Your task to perform on an android device: set default search engine in the chrome app Image 0: 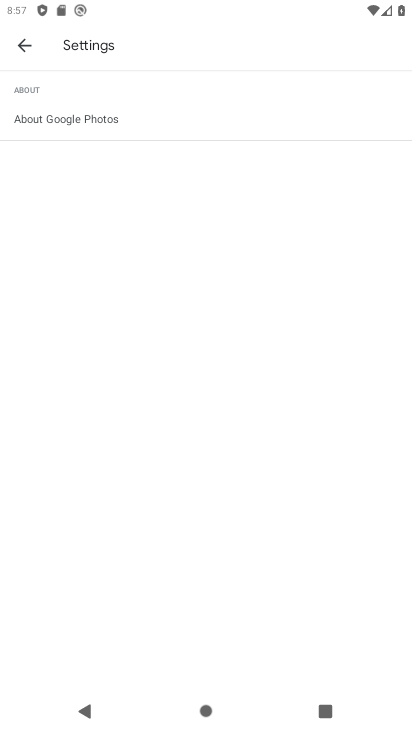
Step 0: press home button
Your task to perform on an android device: set default search engine in the chrome app Image 1: 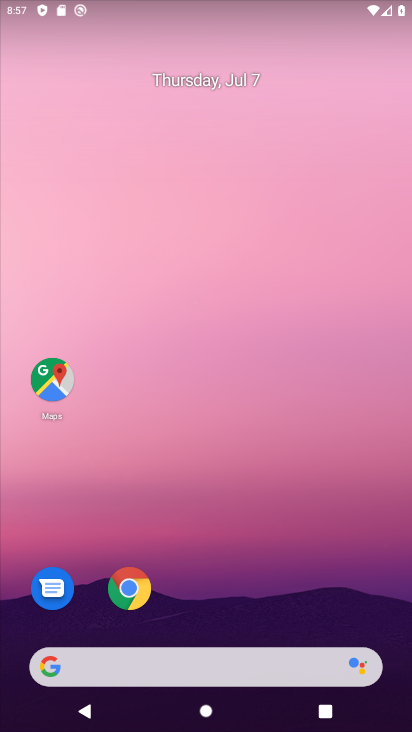
Step 1: click (139, 589)
Your task to perform on an android device: set default search engine in the chrome app Image 2: 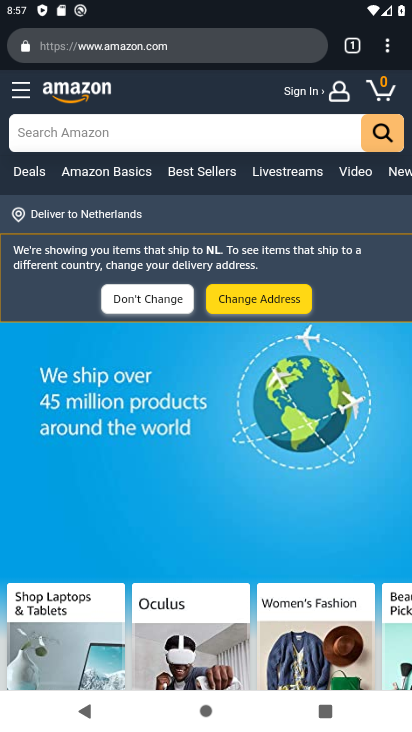
Step 2: click (382, 45)
Your task to perform on an android device: set default search engine in the chrome app Image 3: 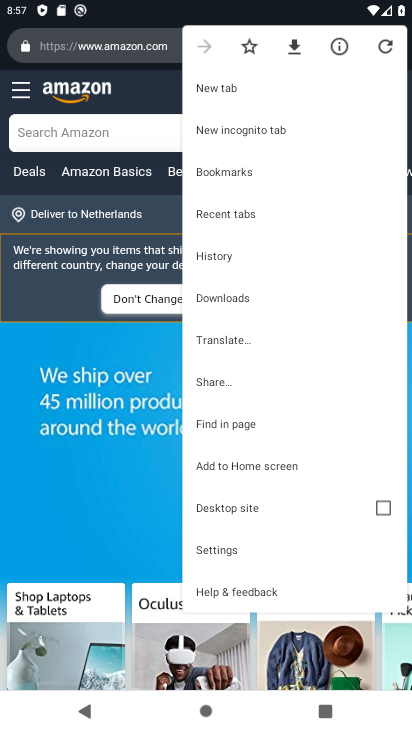
Step 3: click (226, 547)
Your task to perform on an android device: set default search engine in the chrome app Image 4: 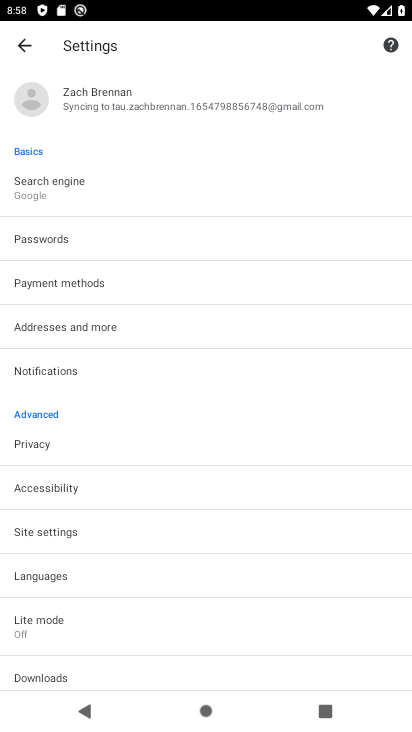
Step 4: click (93, 189)
Your task to perform on an android device: set default search engine in the chrome app Image 5: 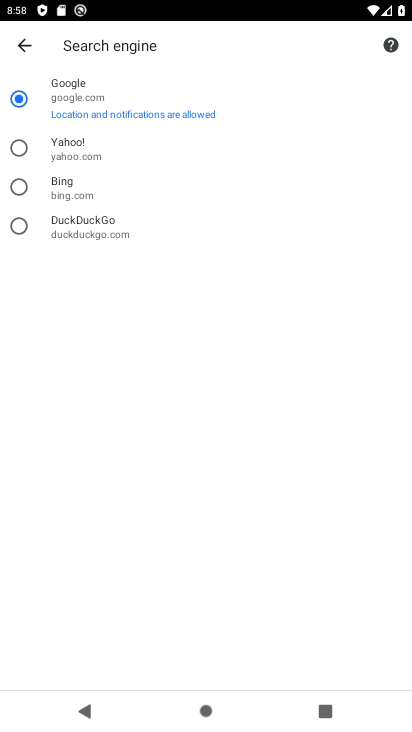
Step 5: click (123, 219)
Your task to perform on an android device: set default search engine in the chrome app Image 6: 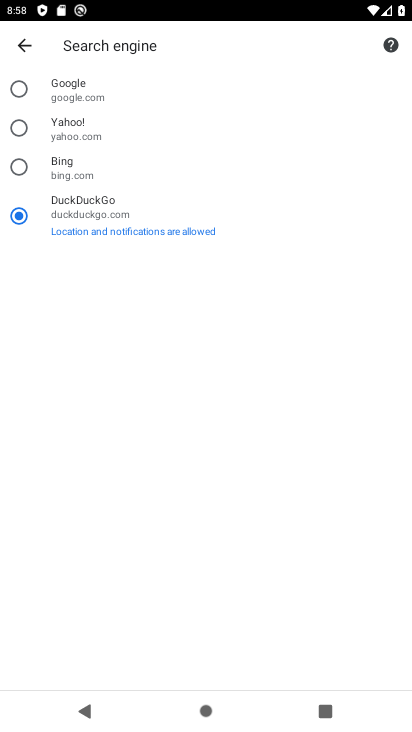
Step 6: task complete